Your task to perform on an android device: Go to location settings Image 0: 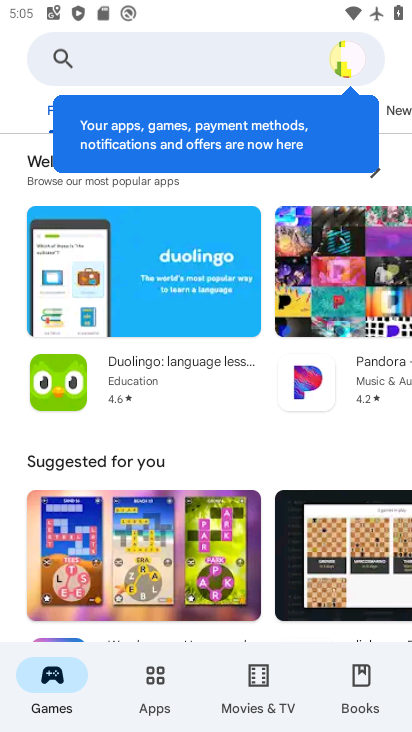
Step 0: press home button
Your task to perform on an android device: Go to location settings Image 1: 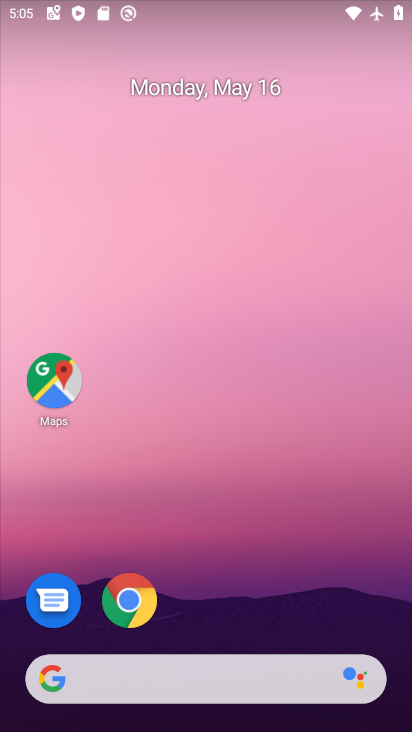
Step 1: drag from (201, 646) to (216, 3)
Your task to perform on an android device: Go to location settings Image 2: 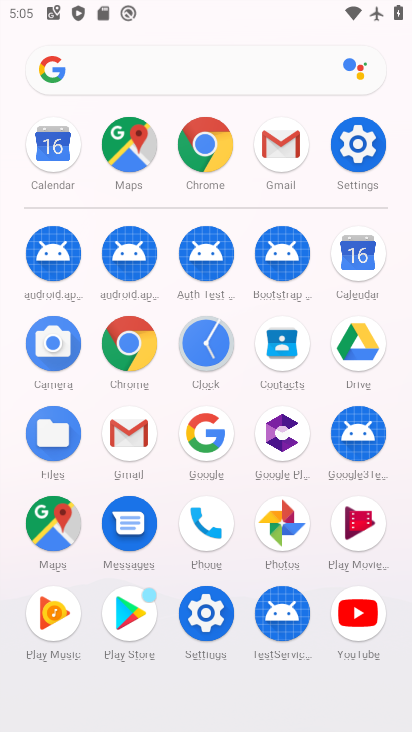
Step 2: click (365, 146)
Your task to perform on an android device: Go to location settings Image 3: 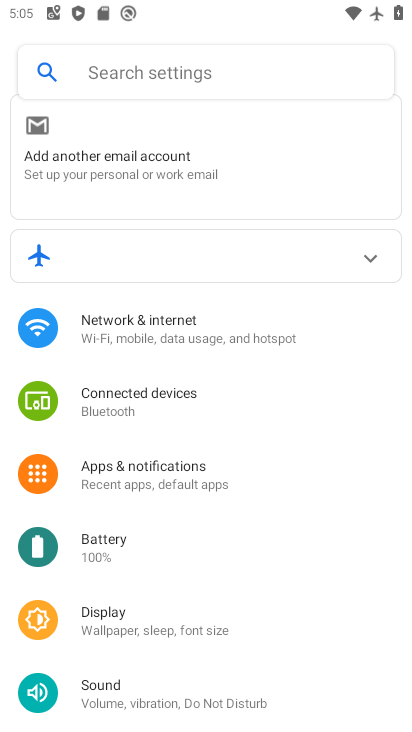
Step 3: drag from (183, 613) to (157, 165)
Your task to perform on an android device: Go to location settings Image 4: 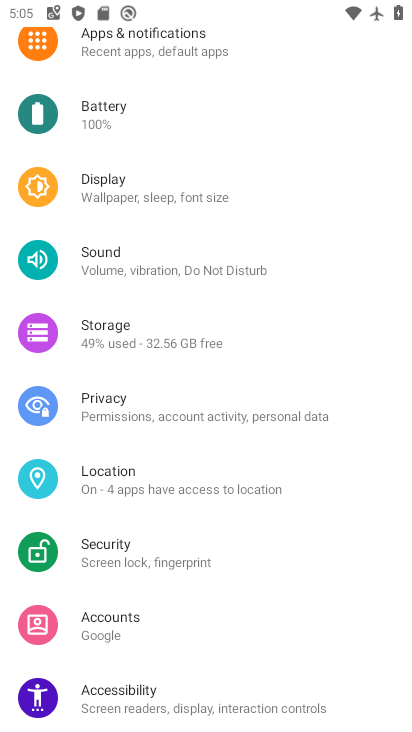
Step 4: click (105, 476)
Your task to perform on an android device: Go to location settings Image 5: 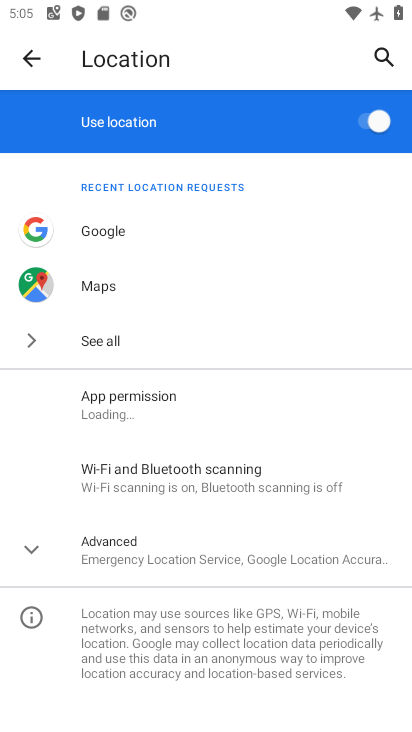
Step 5: click (152, 552)
Your task to perform on an android device: Go to location settings Image 6: 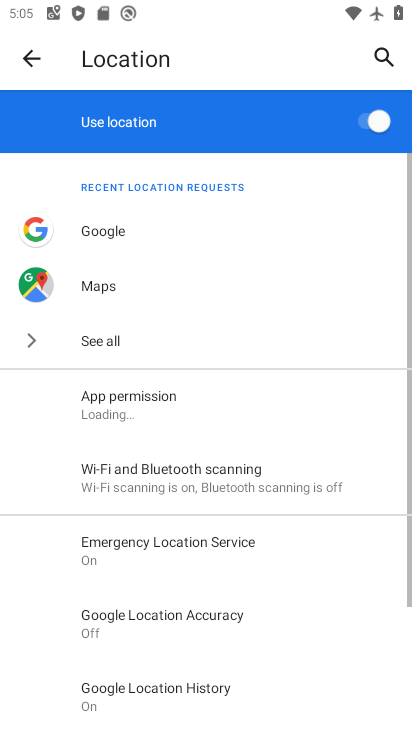
Step 6: task complete